Your task to perform on an android device: Open the calendar app, open the side menu, and click the "Day" option Image 0: 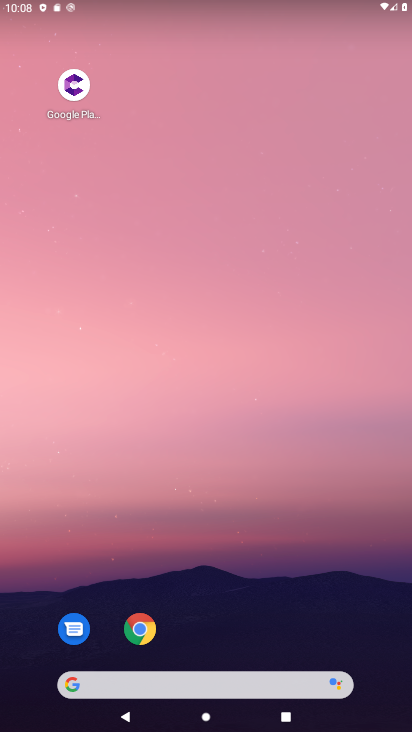
Step 0: drag from (278, 639) to (255, 31)
Your task to perform on an android device: Open the calendar app, open the side menu, and click the "Day" option Image 1: 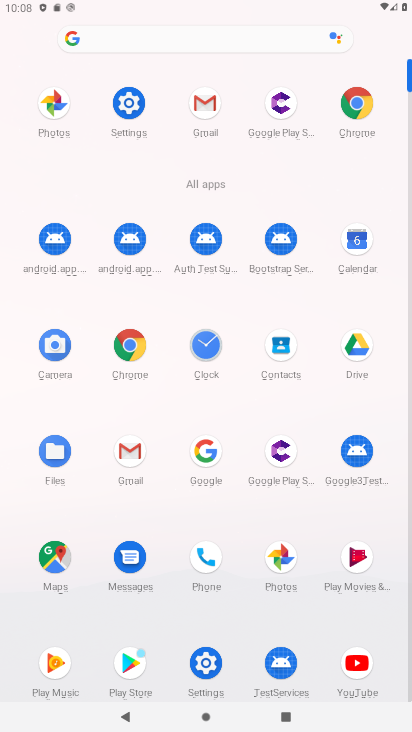
Step 1: click (357, 244)
Your task to perform on an android device: Open the calendar app, open the side menu, and click the "Day" option Image 2: 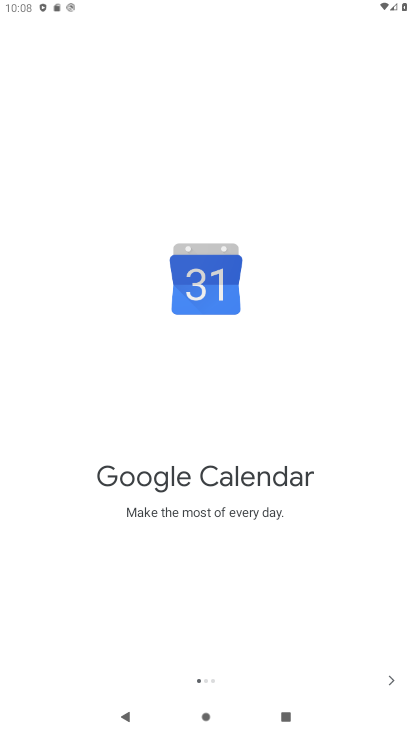
Step 2: click (387, 678)
Your task to perform on an android device: Open the calendar app, open the side menu, and click the "Day" option Image 3: 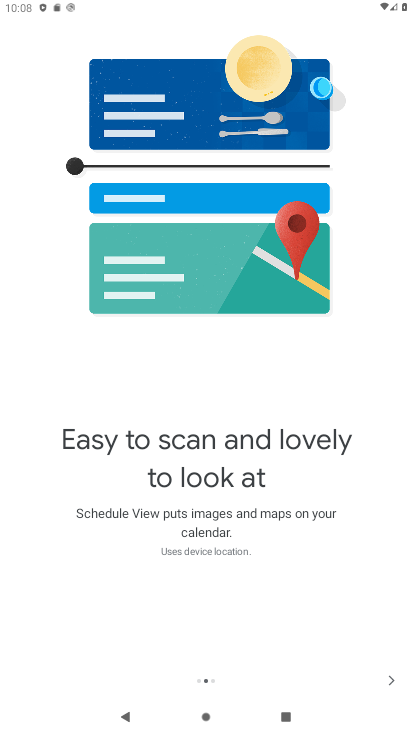
Step 3: click (387, 678)
Your task to perform on an android device: Open the calendar app, open the side menu, and click the "Day" option Image 4: 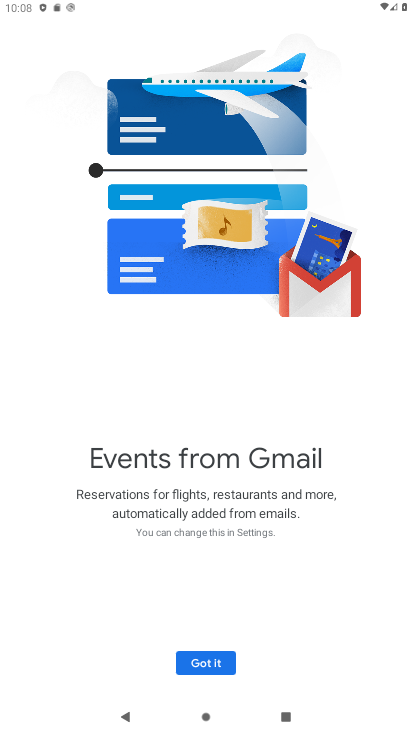
Step 4: click (387, 678)
Your task to perform on an android device: Open the calendar app, open the side menu, and click the "Day" option Image 5: 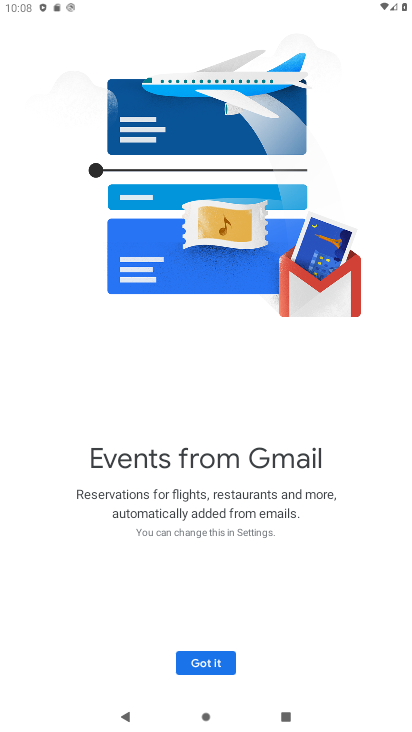
Step 5: click (219, 664)
Your task to perform on an android device: Open the calendar app, open the side menu, and click the "Day" option Image 6: 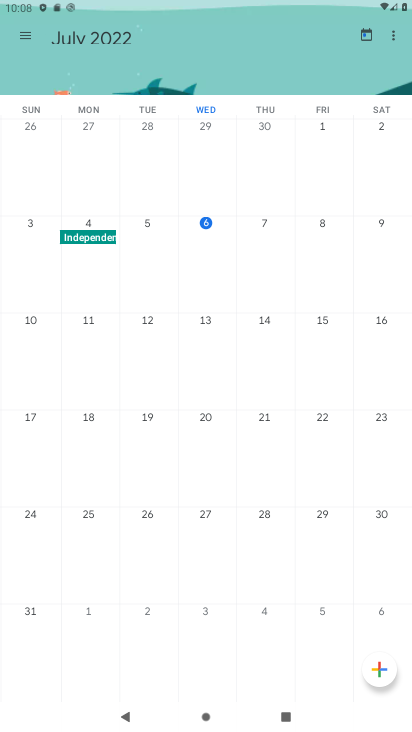
Step 6: click (28, 33)
Your task to perform on an android device: Open the calendar app, open the side menu, and click the "Day" option Image 7: 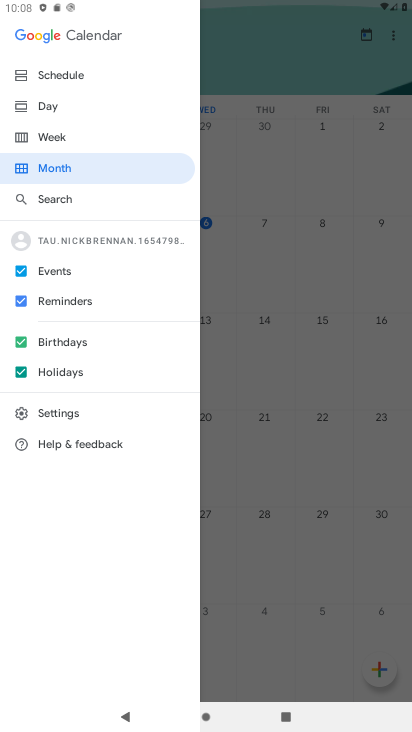
Step 7: click (49, 100)
Your task to perform on an android device: Open the calendar app, open the side menu, and click the "Day" option Image 8: 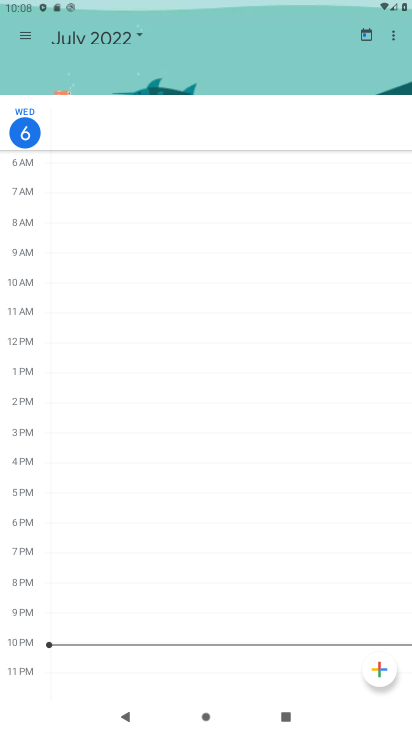
Step 8: task complete